Your task to perform on an android device: see creations saved in the google photos Image 0: 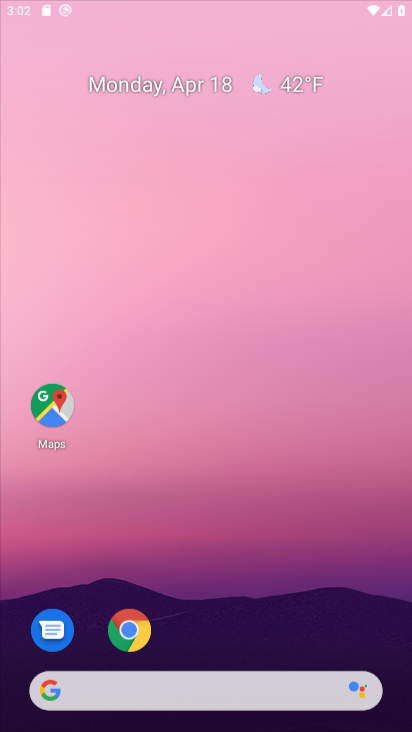
Step 0: press home button
Your task to perform on an android device: see creations saved in the google photos Image 1: 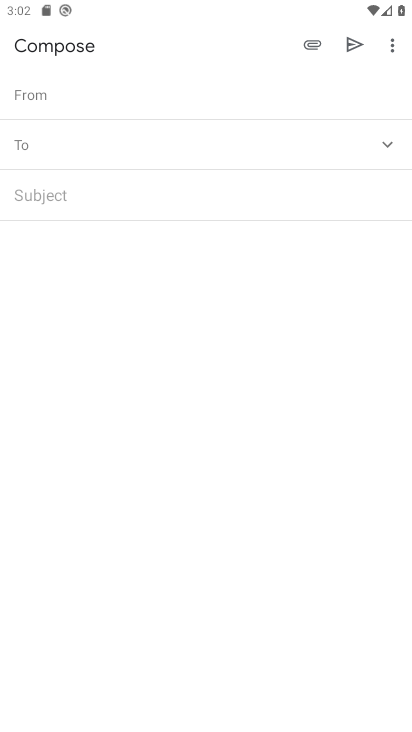
Step 1: drag from (227, 606) to (250, 260)
Your task to perform on an android device: see creations saved in the google photos Image 2: 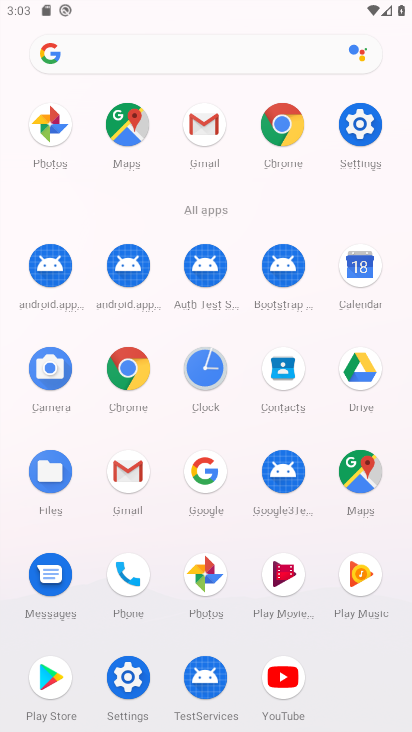
Step 2: drag from (178, 662) to (242, 301)
Your task to perform on an android device: see creations saved in the google photos Image 3: 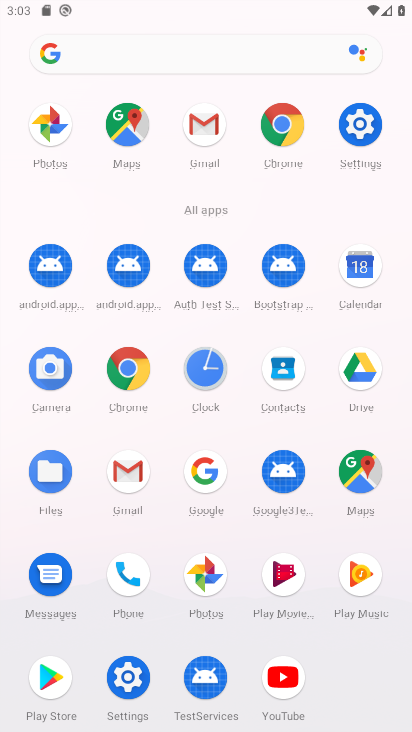
Step 3: click (196, 577)
Your task to perform on an android device: see creations saved in the google photos Image 4: 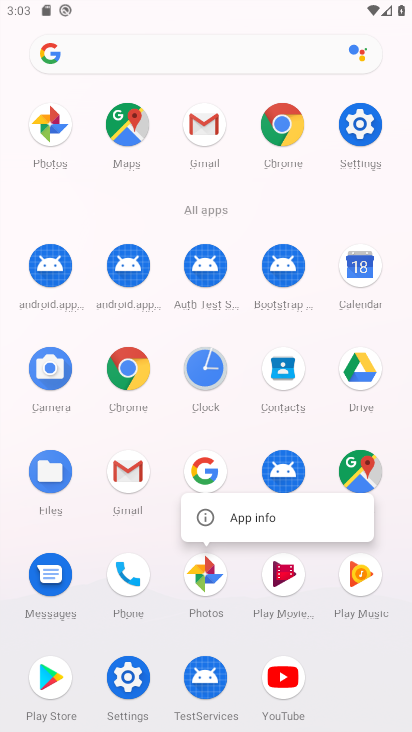
Step 4: click (197, 576)
Your task to perform on an android device: see creations saved in the google photos Image 5: 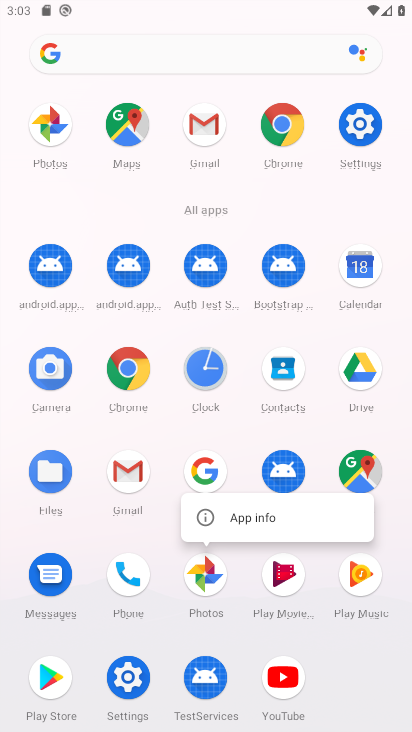
Step 5: click (194, 573)
Your task to perform on an android device: see creations saved in the google photos Image 6: 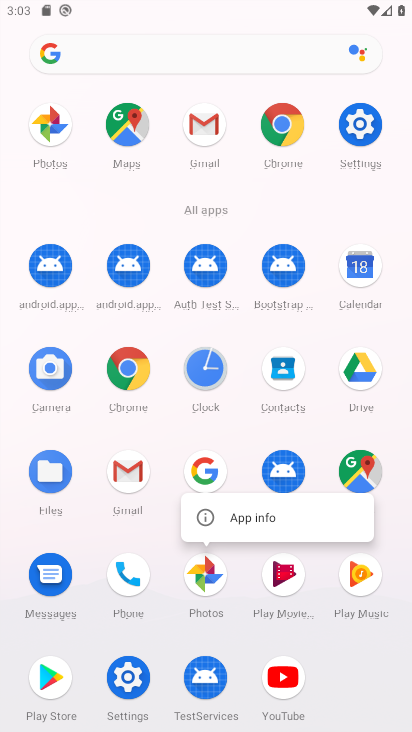
Step 6: click (204, 572)
Your task to perform on an android device: see creations saved in the google photos Image 7: 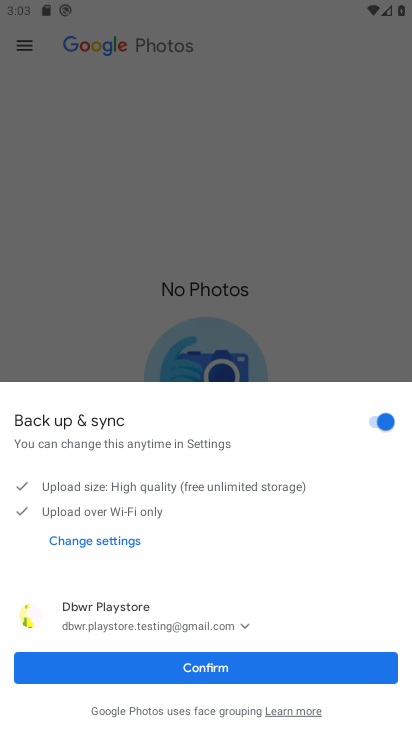
Step 7: click (192, 660)
Your task to perform on an android device: see creations saved in the google photos Image 8: 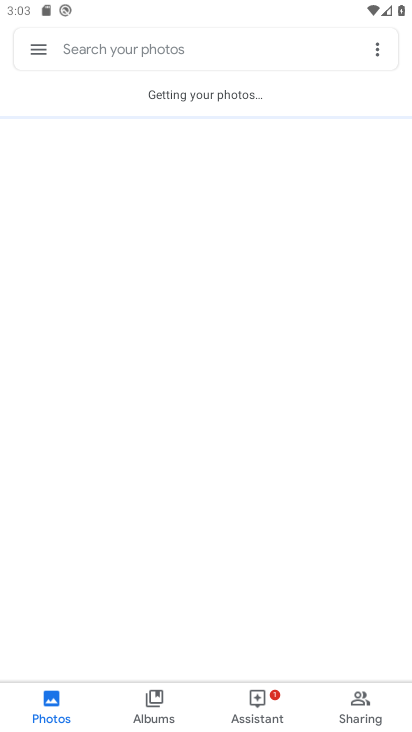
Step 8: click (129, 697)
Your task to perform on an android device: see creations saved in the google photos Image 9: 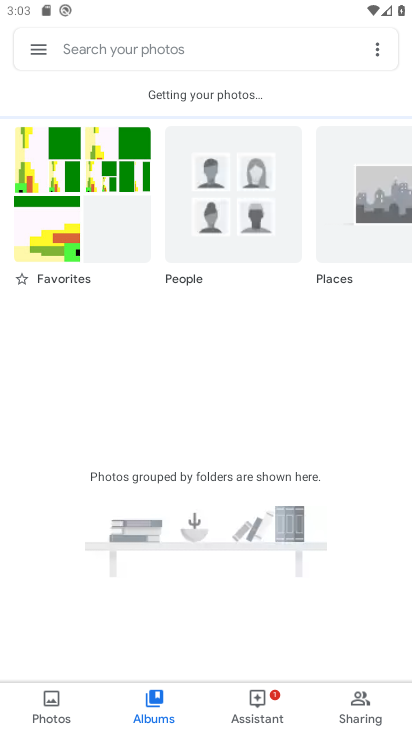
Step 9: click (31, 153)
Your task to perform on an android device: see creations saved in the google photos Image 10: 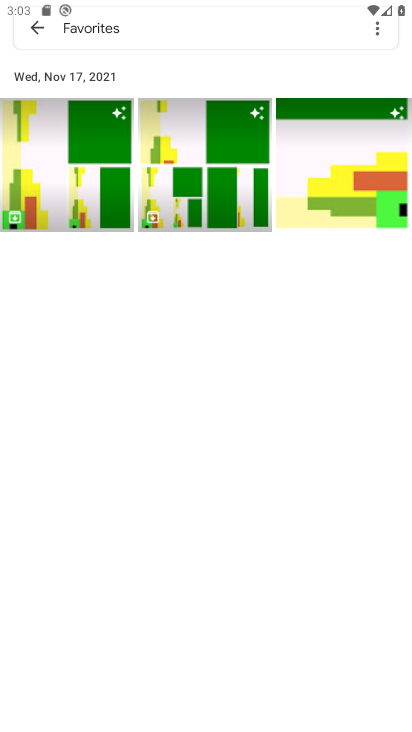
Step 10: task complete